Your task to perform on an android device: turn pop-ups off in chrome Image 0: 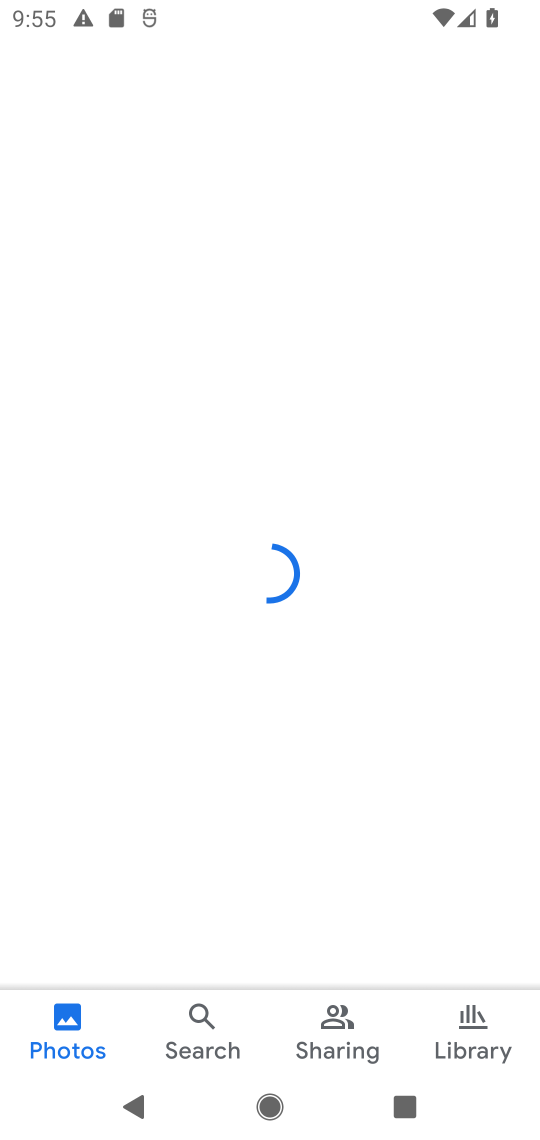
Step 0: press home button
Your task to perform on an android device: turn pop-ups off in chrome Image 1: 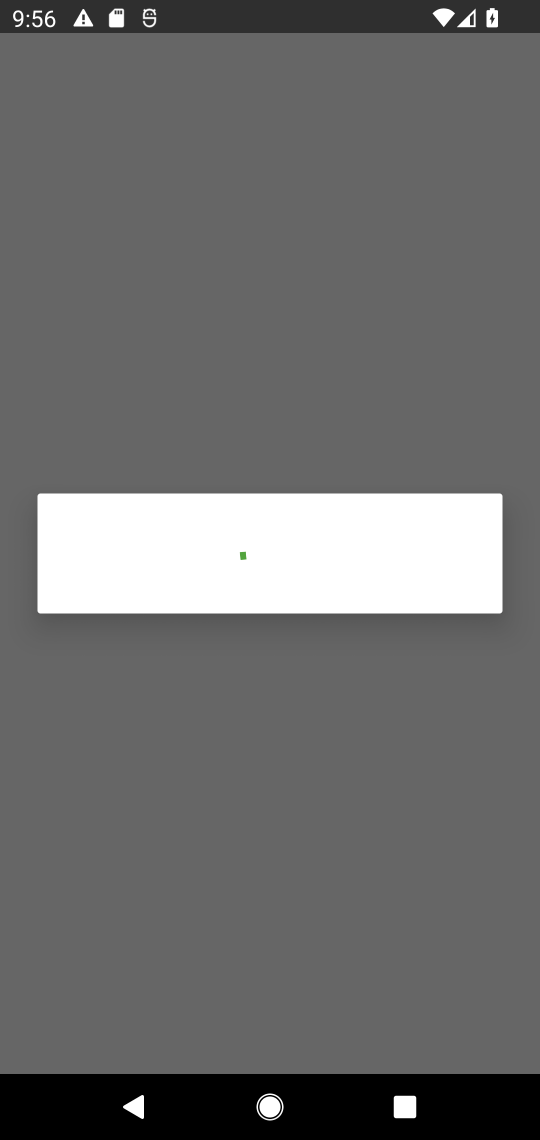
Step 1: press home button
Your task to perform on an android device: turn pop-ups off in chrome Image 2: 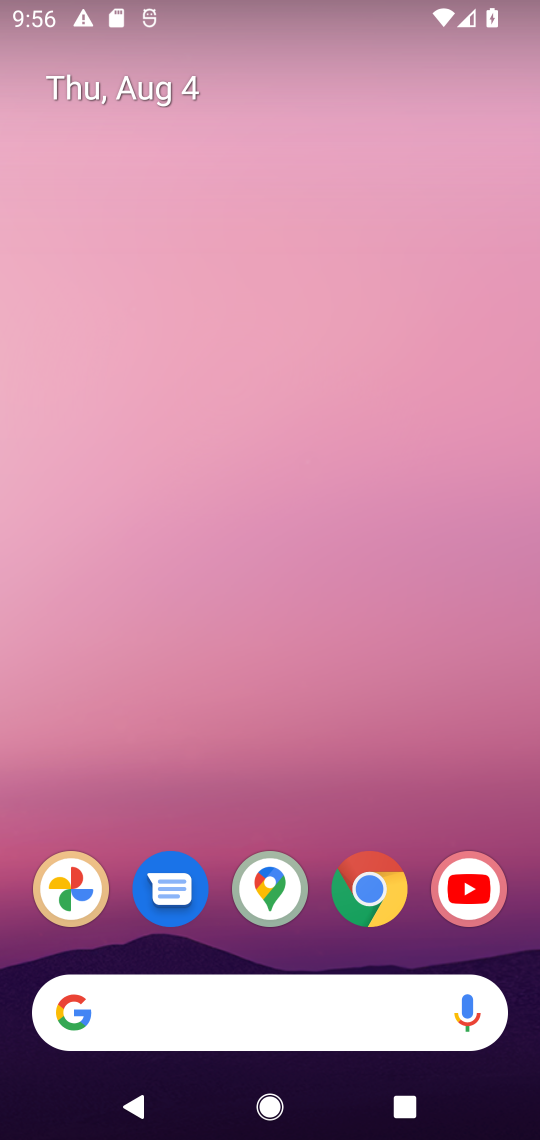
Step 2: drag from (317, 832) to (356, 282)
Your task to perform on an android device: turn pop-ups off in chrome Image 3: 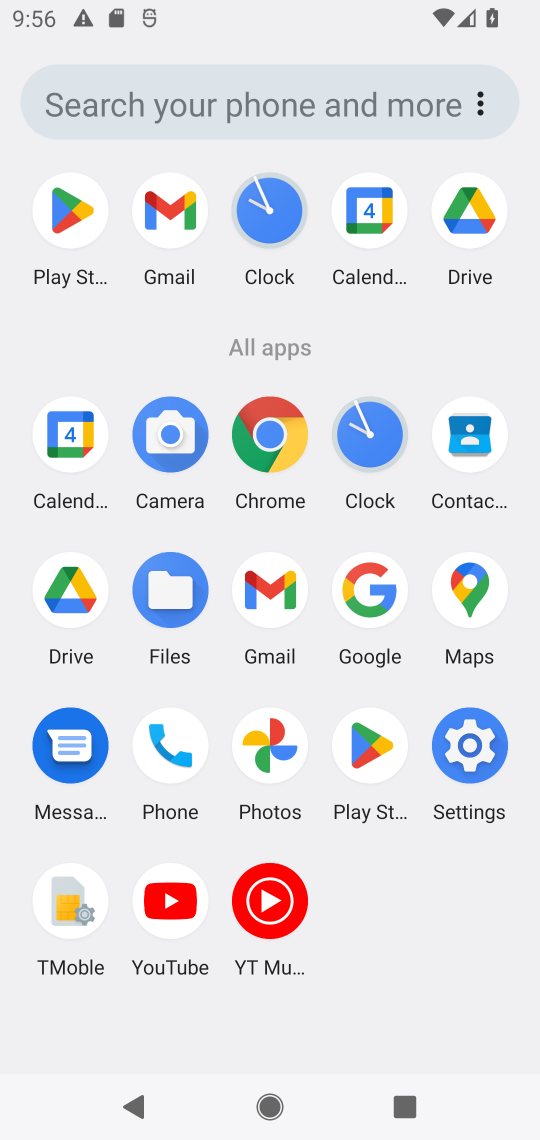
Step 3: click (268, 435)
Your task to perform on an android device: turn pop-ups off in chrome Image 4: 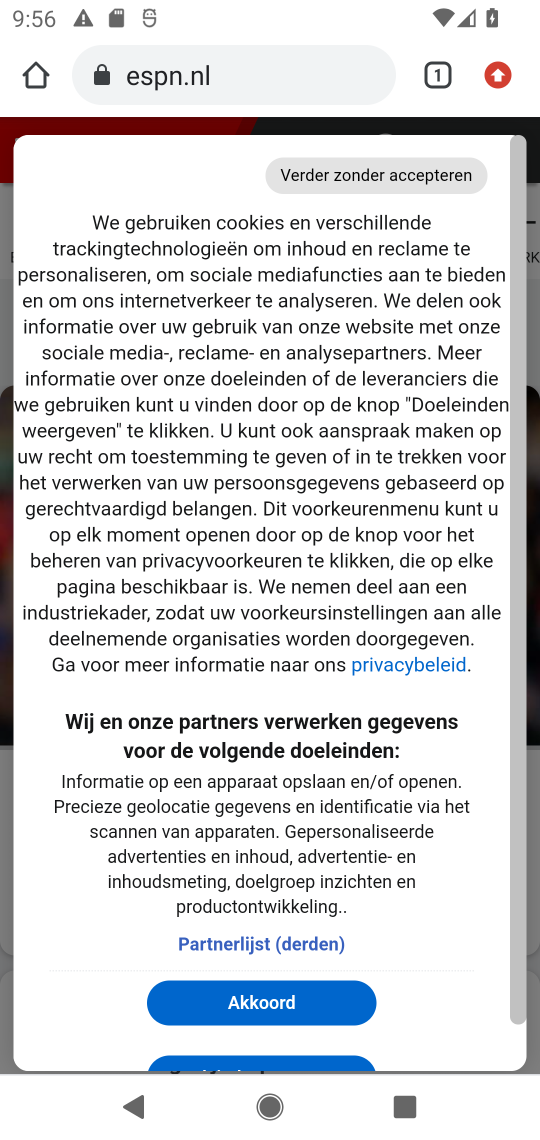
Step 4: click (497, 78)
Your task to perform on an android device: turn pop-ups off in chrome Image 5: 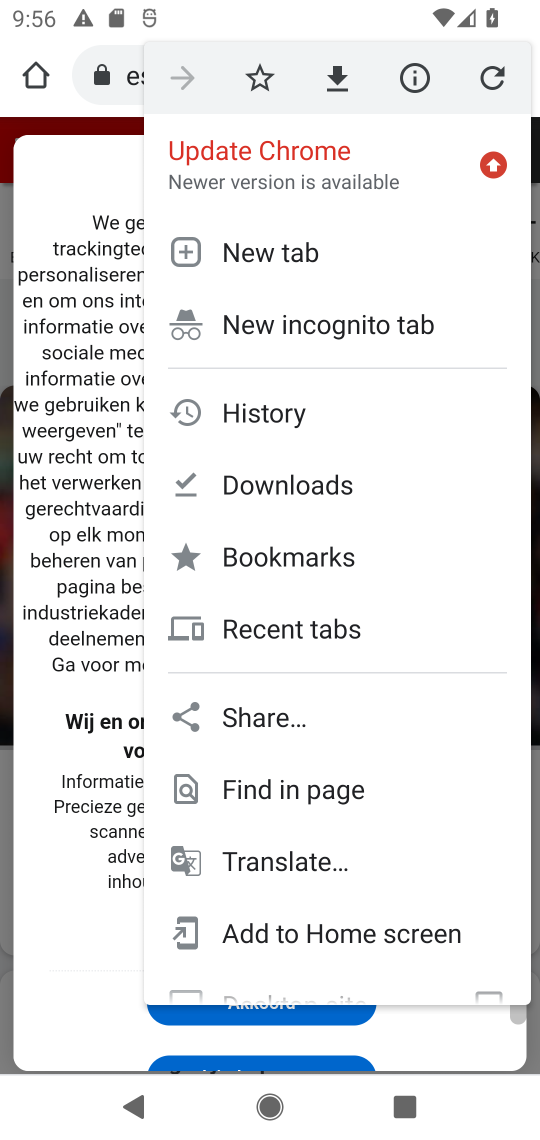
Step 5: drag from (426, 774) to (421, 582)
Your task to perform on an android device: turn pop-ups off in chrome Image 6: 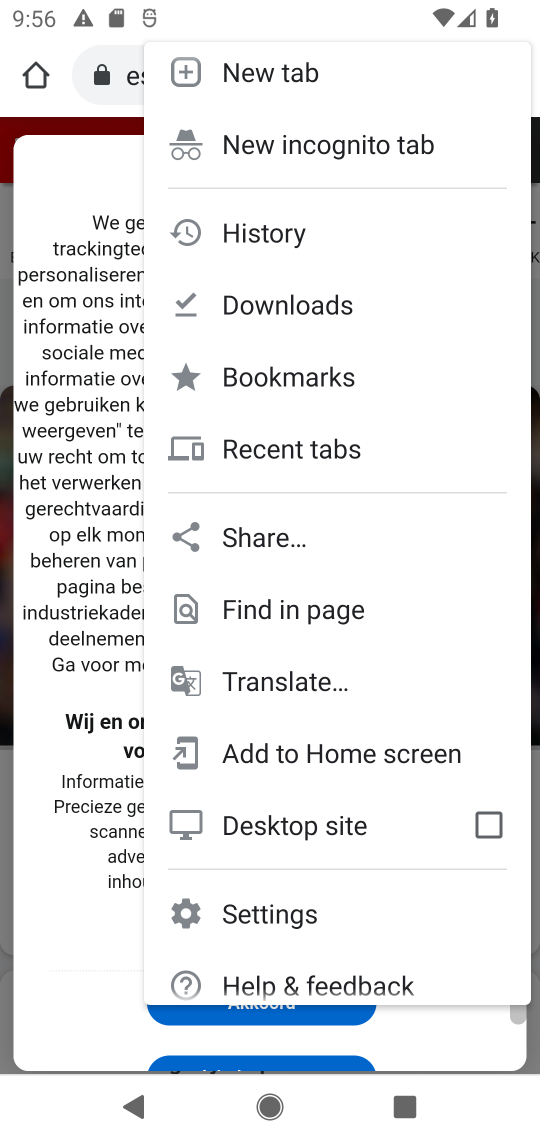
Step 6: drag from (407, 882) to (436, 619)
Your task to perform on an android device: turn pop-ups off in chrome Image 7: 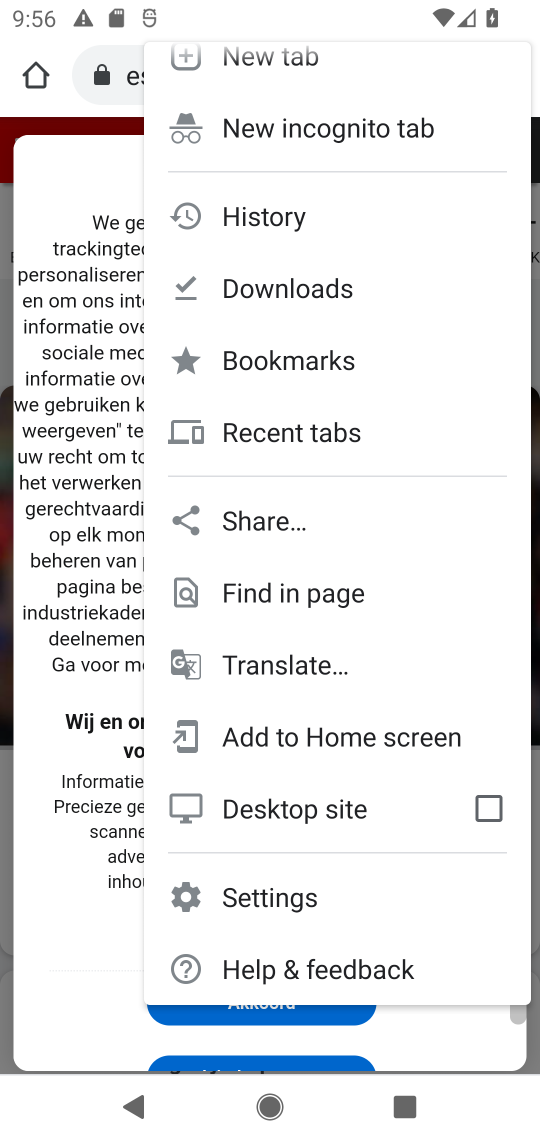
Step 7: click (407, 891)
Your task to perform on an android device: turn pop-ups off in chrome Image 8: 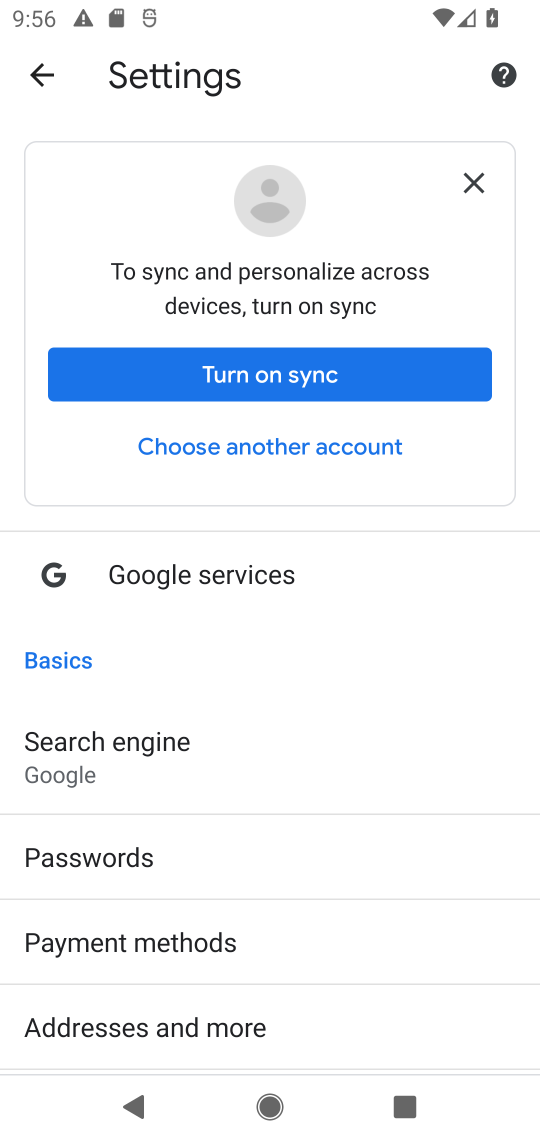
Step 8: drag from (399, 859) to (410, 572)
Your task to perform on an android device: turn pop-ups off in chrome Image 9: 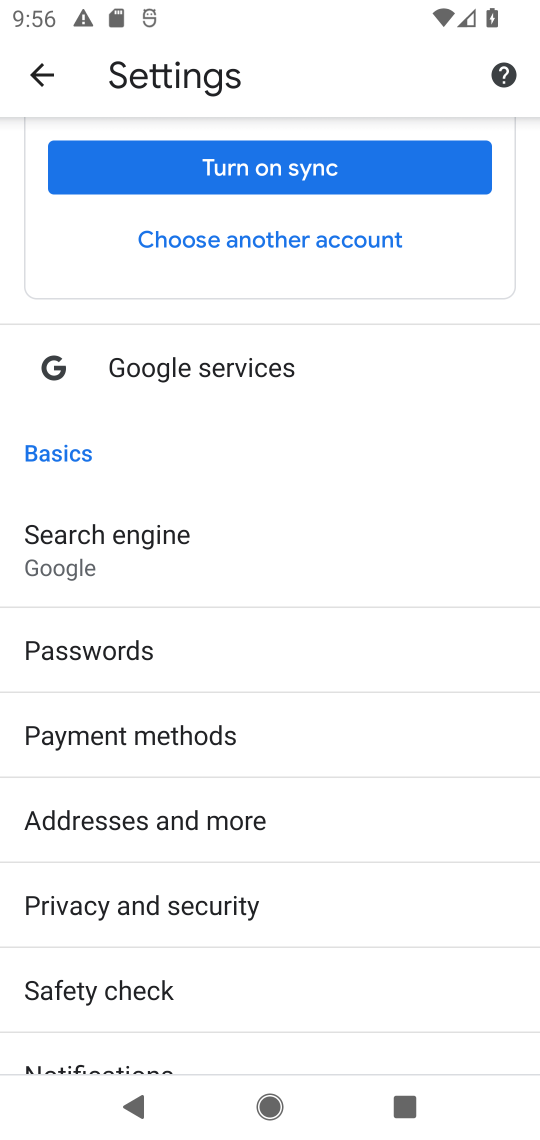
Step 9: drag from (378, 897) to (388, 588)
Your task to perform on an android device: turn pop-ups off in chrome Image 10: 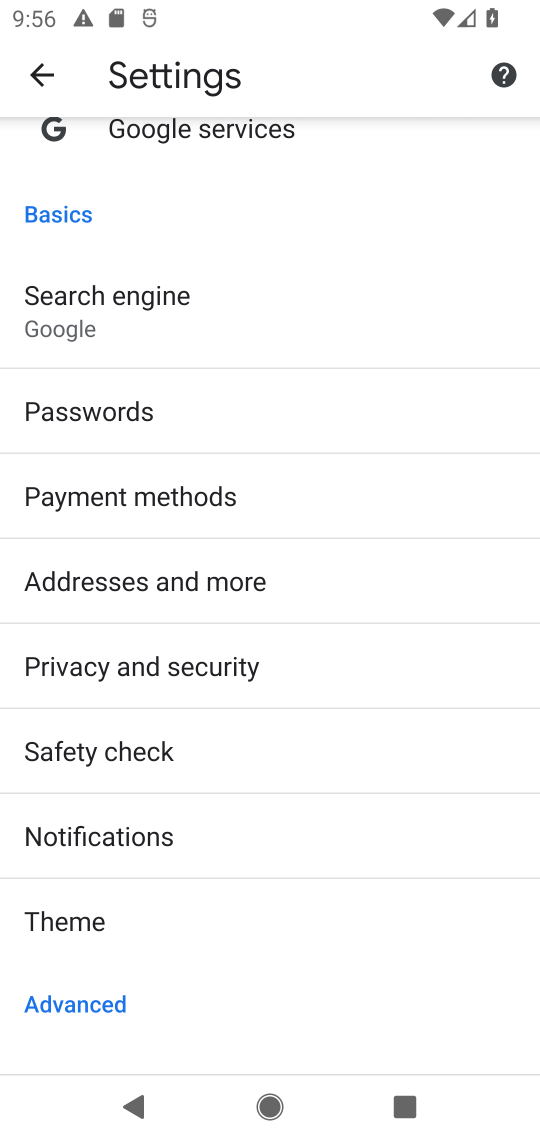
Step 10: drag from (358, 910) to (376, 607)
Your task to perform on an android device: turn pop-ups off in chrome Image 11: 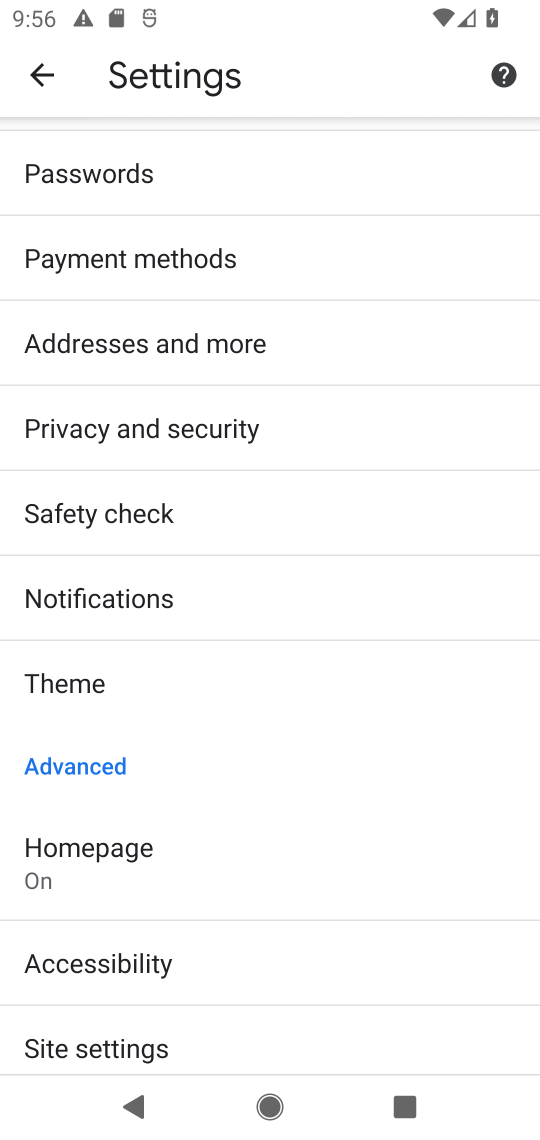
Step 11: drag from (349, 987) to (379, 638)
Your task to perform on an android device: turn pop-ups off in chrome Image 12: 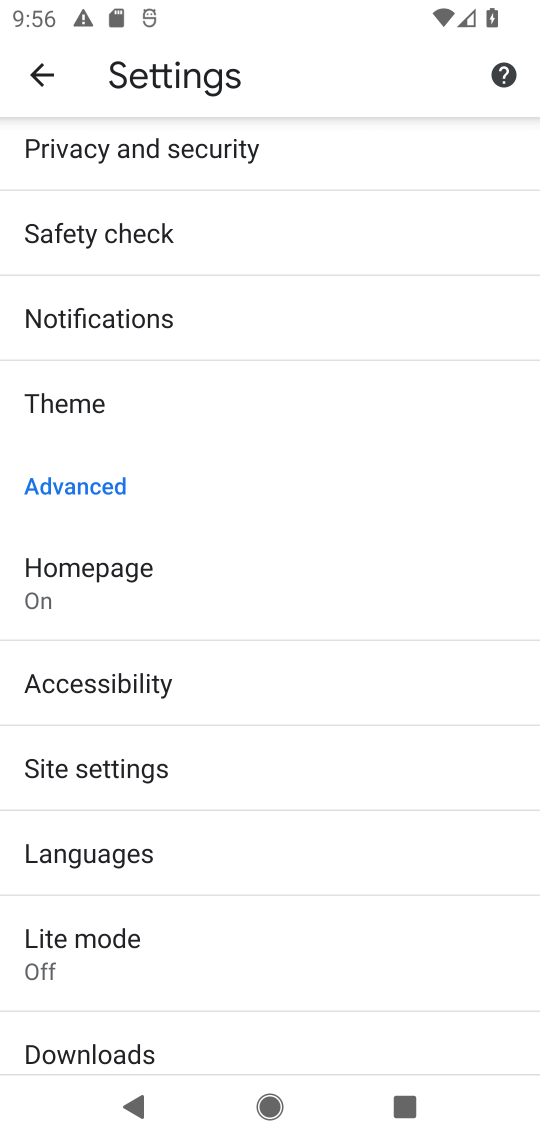
Step 12: drag from (357, 951) to (374, 713)
Your task to perform on an android device: turn pop-ups off in chrome Image 13: 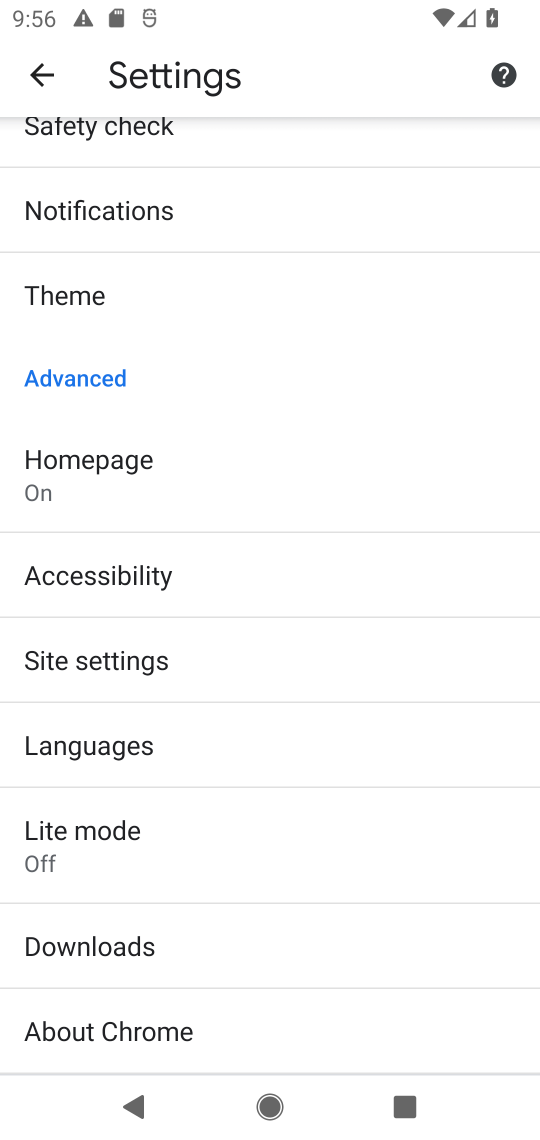
Step 13: click (306, 660)
Your task to perform on an android device: turn pop-ups off in chrome Image 14: 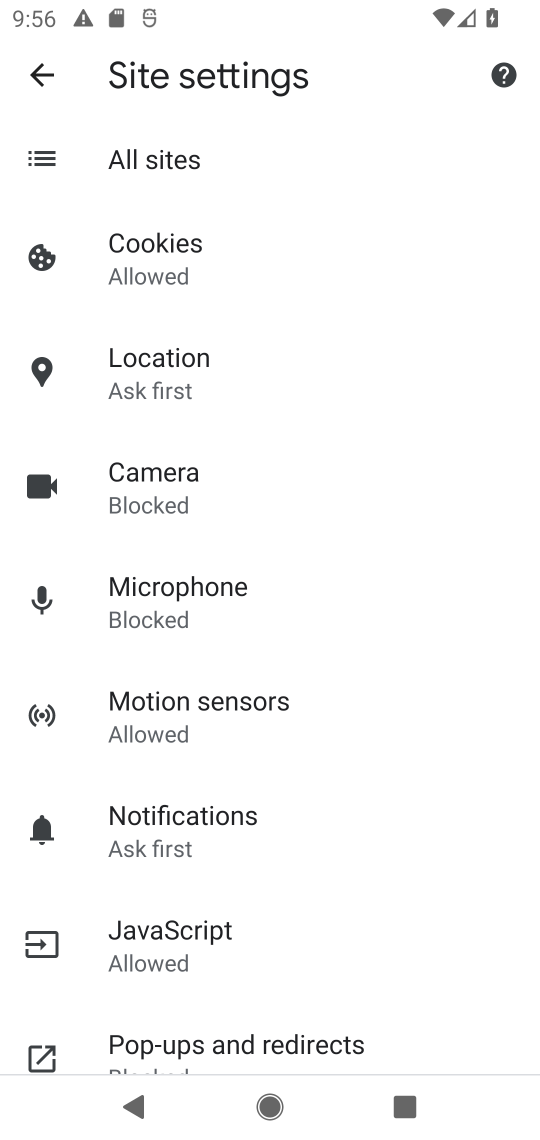
Step 14: drag from (419, 865) to (418, 573)
Your task to perform on an android device: turn pop-ups off in chrome Image 15: 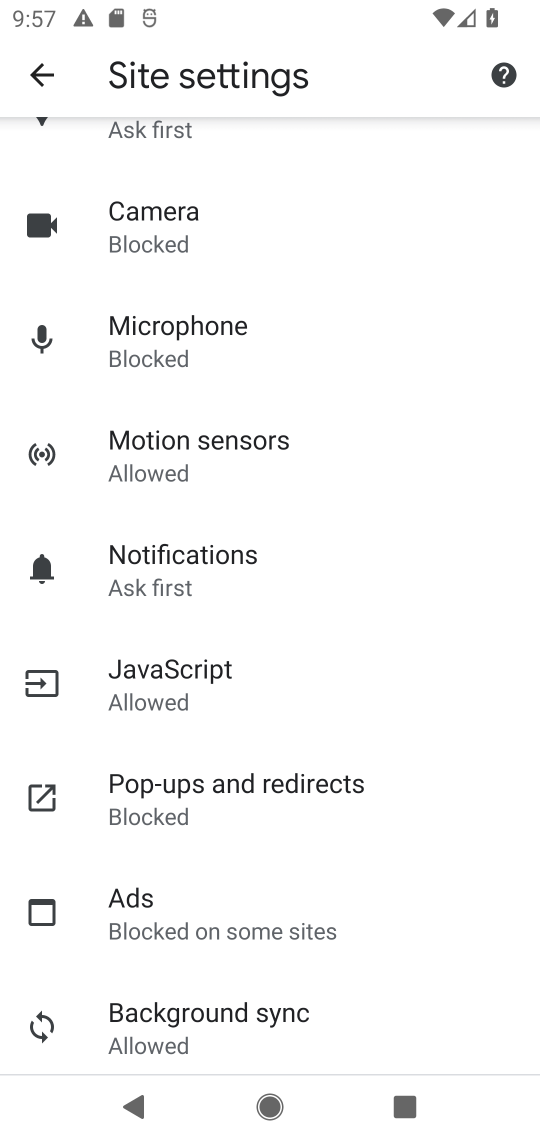
Step 15: drag from (451, 884) to (452, 658)
Your task to perform on an android device: turn pop-ups off in chrome Image 16: 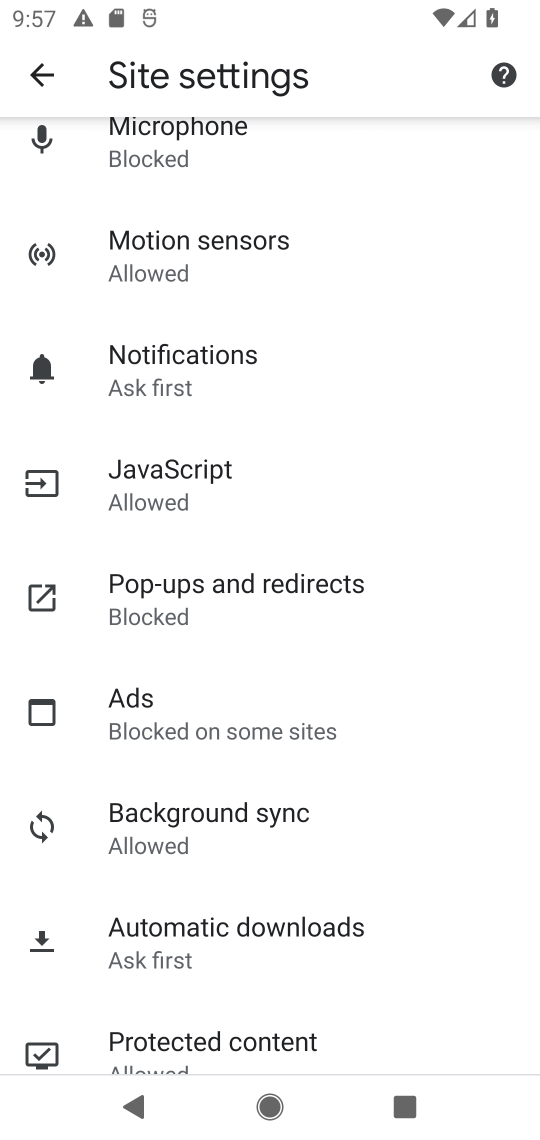
Step 16: drag from (424, 871) to (434, 531)
Your task to perform on an android device: turn pop-ups off in chrome Image 17: 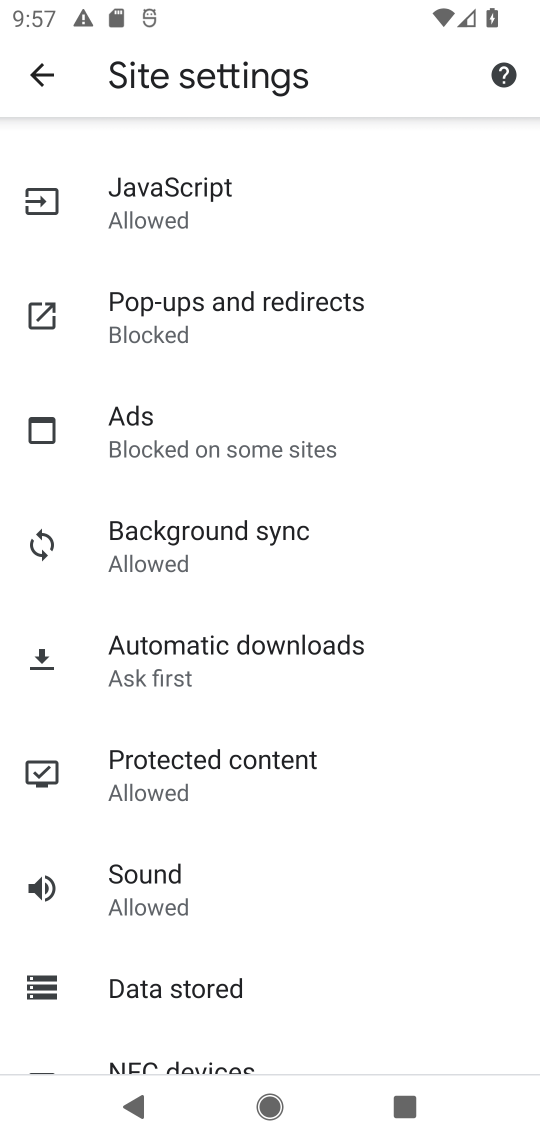
Step 17: drag from (405, 792) to (430, 541)
Your task to perform on an android device: turn pop-ups off in chrome Image 18: 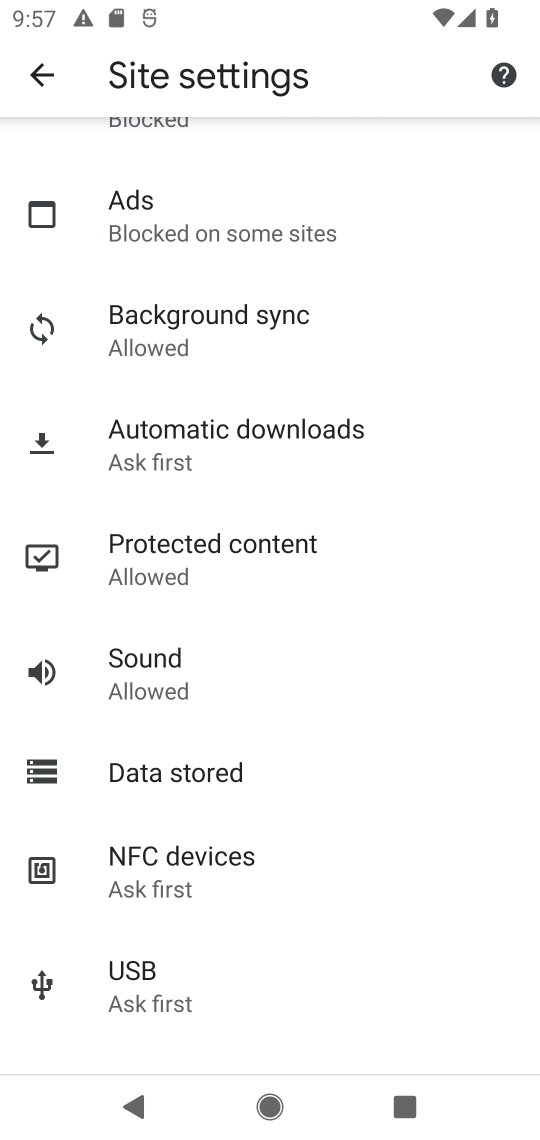
Step 18: drag from (446, 369) to (449, 608)
Your task to perform on an android device: turn pop-ups off in chrome Image 19: 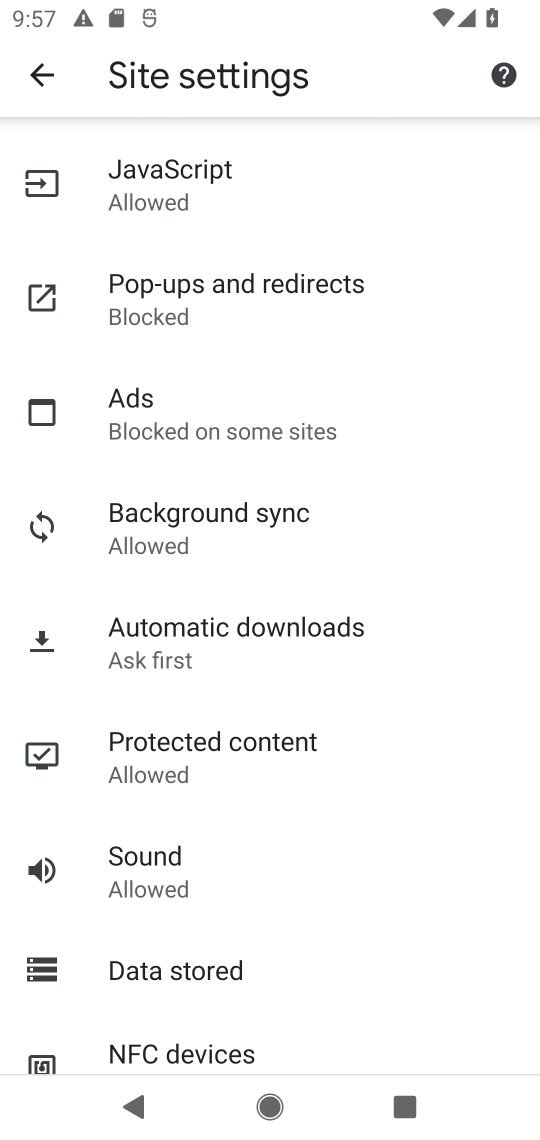
Step 19: click (339, 291)
Your task to perform on an android device: turn pop-ups off in chrome Image 20: 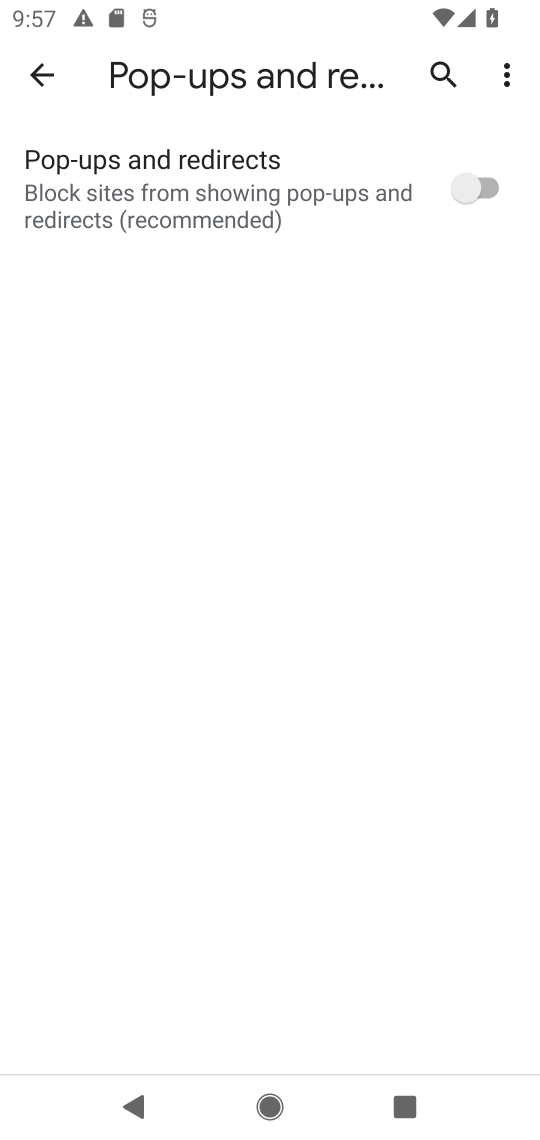
Step 20: task complete